Your task to perform on an android device: Go to Amazon Image 0: 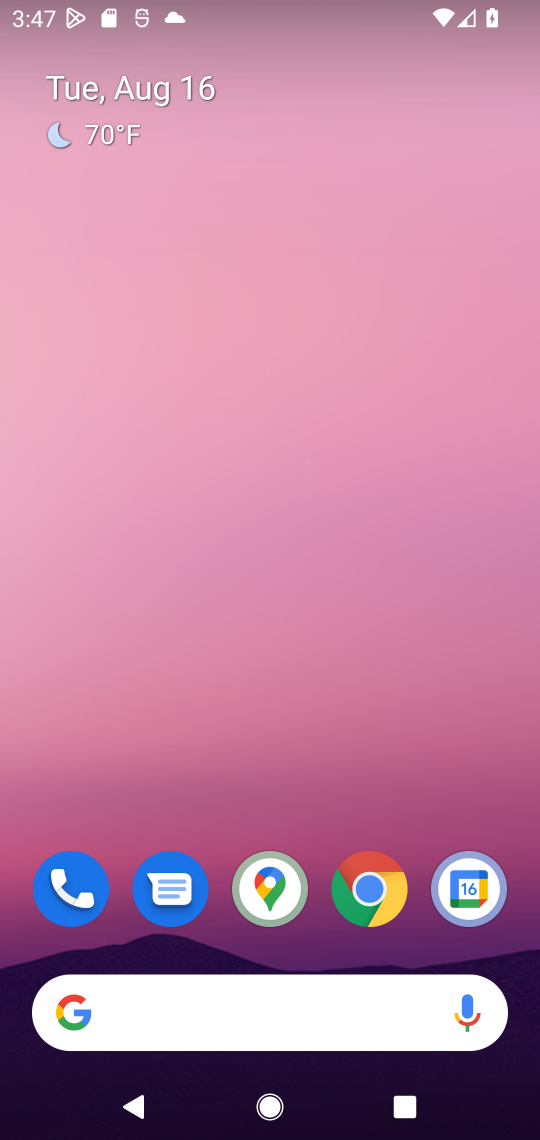
Step 0: click (362, 877)
Your task to perform on an android device: Go to Amazon Image 1: 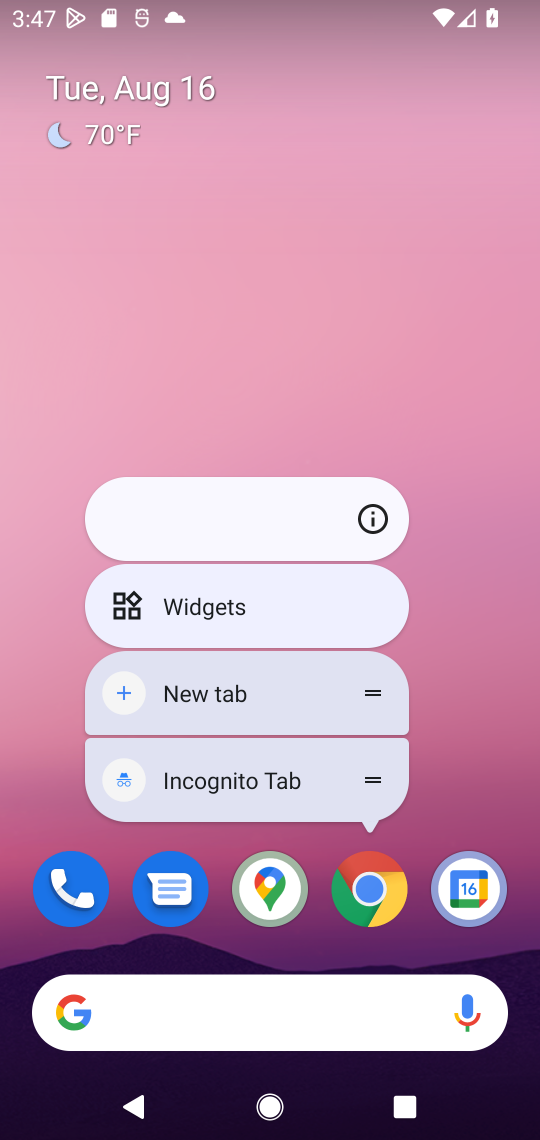
Step 1: click (229, 693)
Your task to perform on an android device: Go to Amazon Image 2: 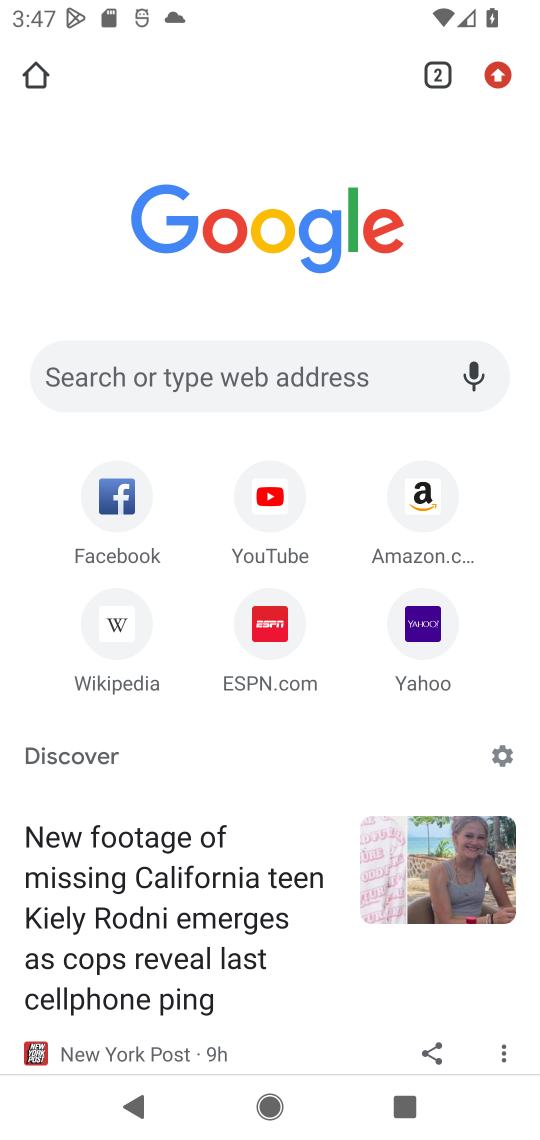
Step 2: click (423, 497)
Your task to perform on an android device: Go to Amazon Image 3: 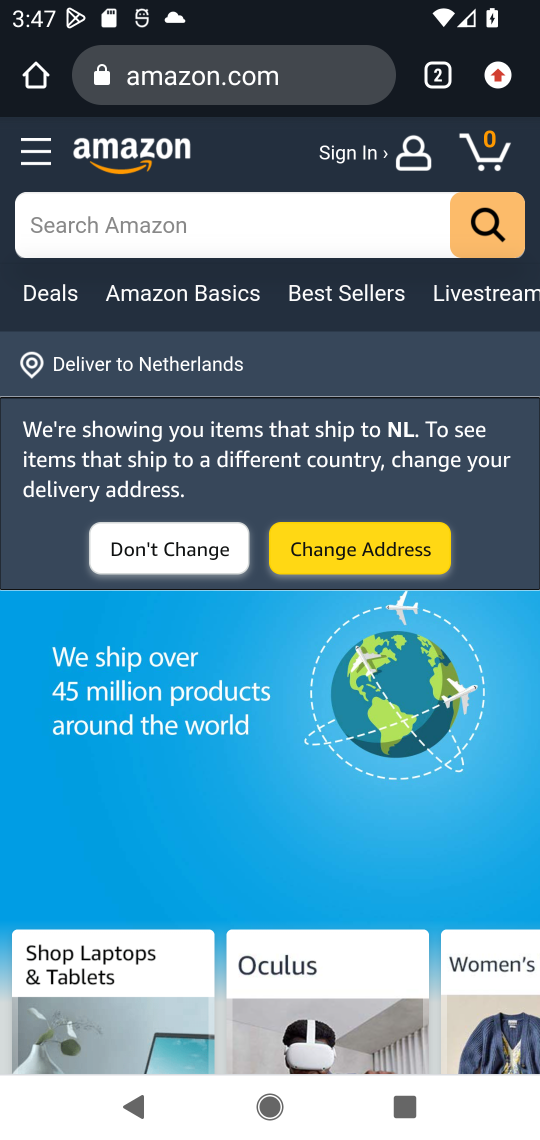
Step 3: click (316, 213)
Your task to perform on an android device: Go to Amazon Image 4: 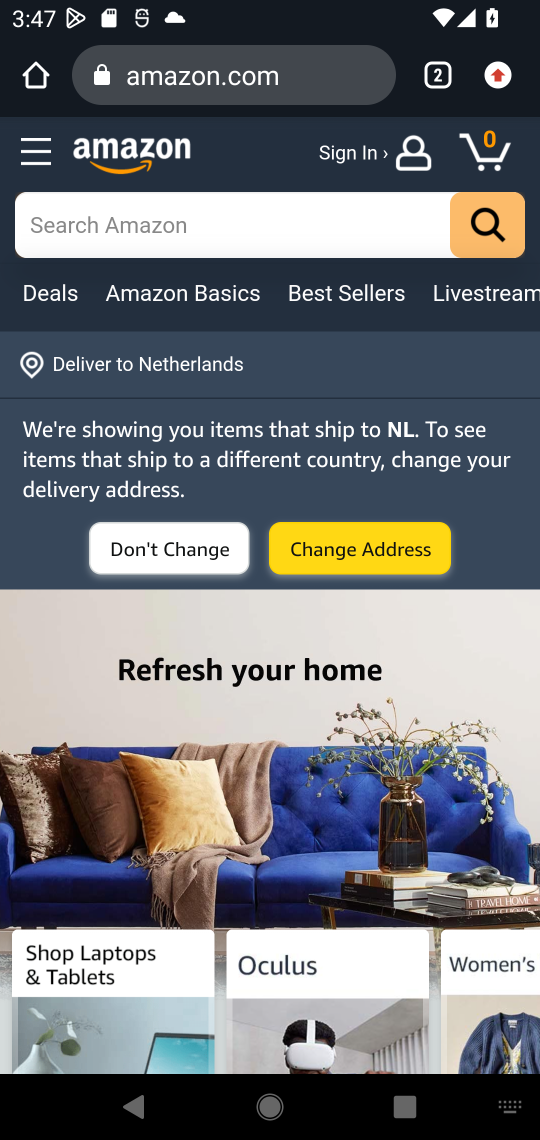
Step 4: task complete